Your task to perform on an android device: Open the calendar and show me this week's events? Image 0: 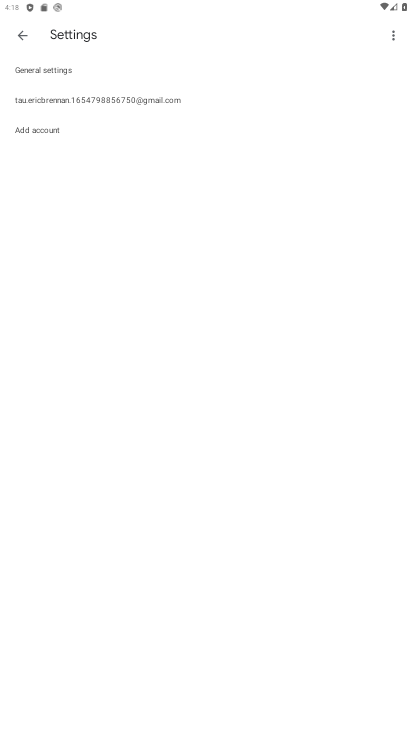
Step 0: press home button
Your task to perform on an android device: Open the calendar and show me this week's events? Image 1: 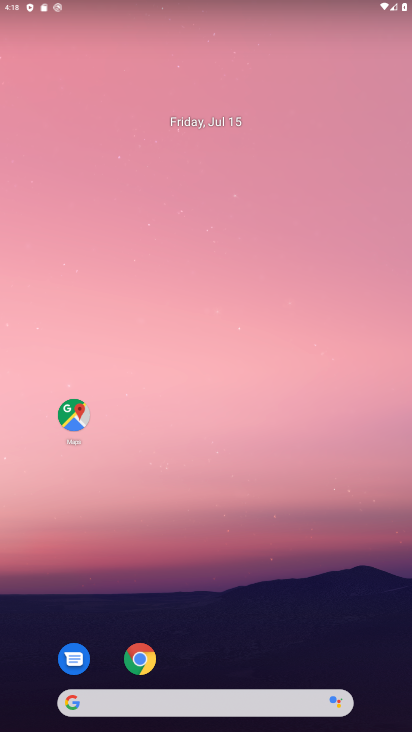
Step 1: click (180, 117)
Your task to perform on an android device: Open the calendar and show me this week's events? Image 2: 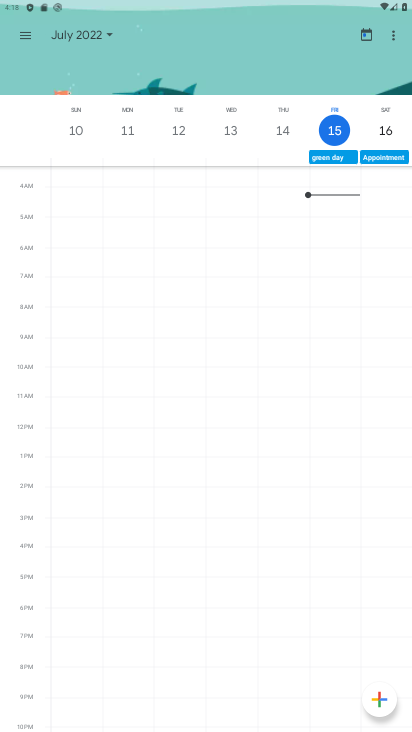
Step 2: task complete